Your task to perform on an android device: Open the calendar app, open the side menu, and click the "Day" option Image 0: 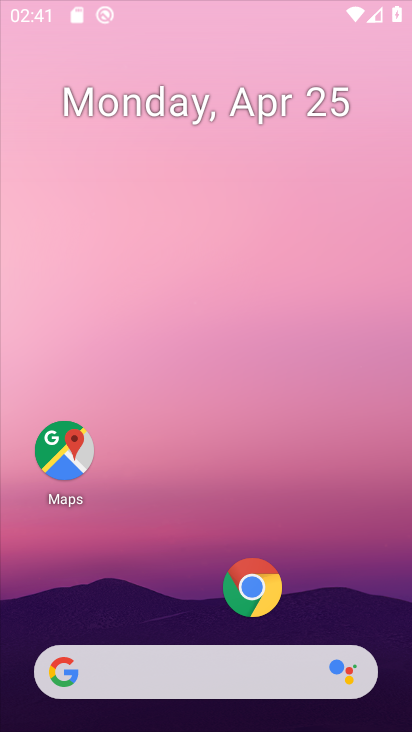
Step 0: drag from (208, 173) to (210, 29)
Your task to perform on an android device: Open the calendar app, open the side menu, and click the "Day" option Image 1: 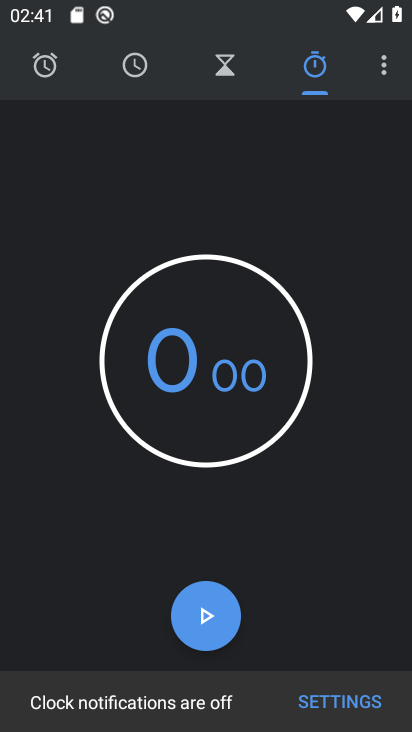
Step 1: press home button
Your task to perform on an android device: Open the calendar app, open the side menu, and click the "Day" option Image 2: 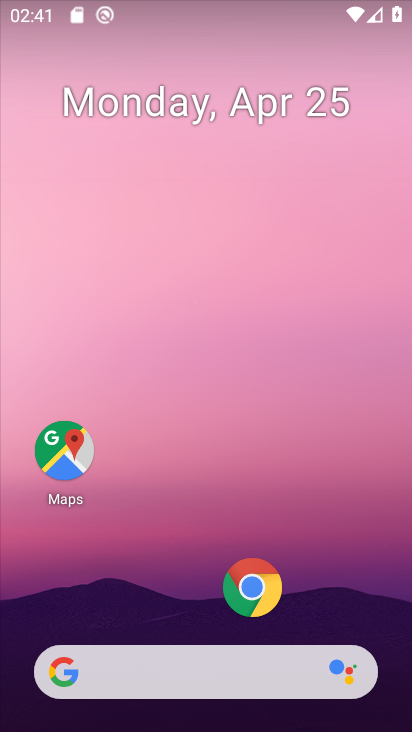
Step 2: drag from (200, 609) to (196, 103)
Your task to perform on an android device: Open the calendar app, open the side menu, and click the "Day" option Image 3: 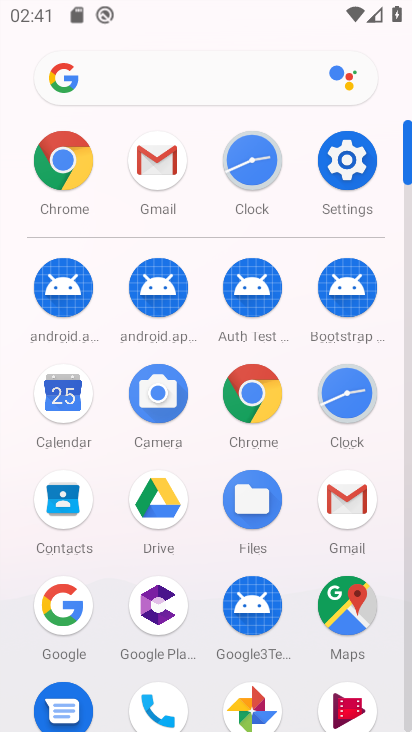
Step 3: click (62, 389)
Your task to perform on an android device: Open the calendar app, open the side menu, and click the "Day" option Image 4: 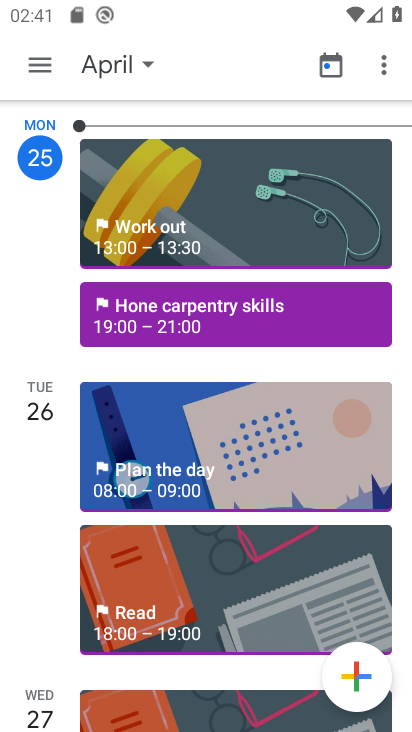
Step 4: click (39, 62)
Your task to perform on an android device: Open the calendar app, open the side menu, and click the "Day" option Image 5: 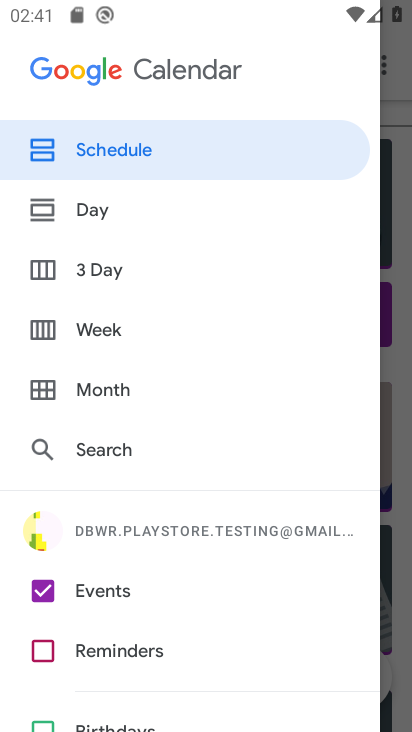
Step 5: click (119, 205)
Your task to perform on an android device: Open the calendar app, open the side menu, and click the "Day" option Image 6: 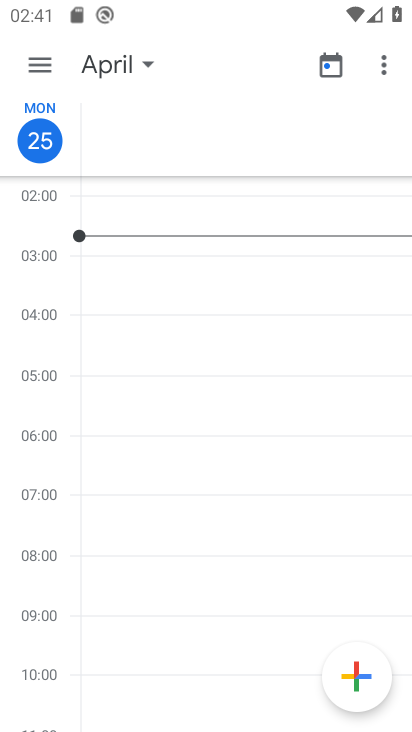
Step 6: task complete